Your task to perform on an android device: open app "Adobe Acrobat Reader: Edit PDF" Image 0: 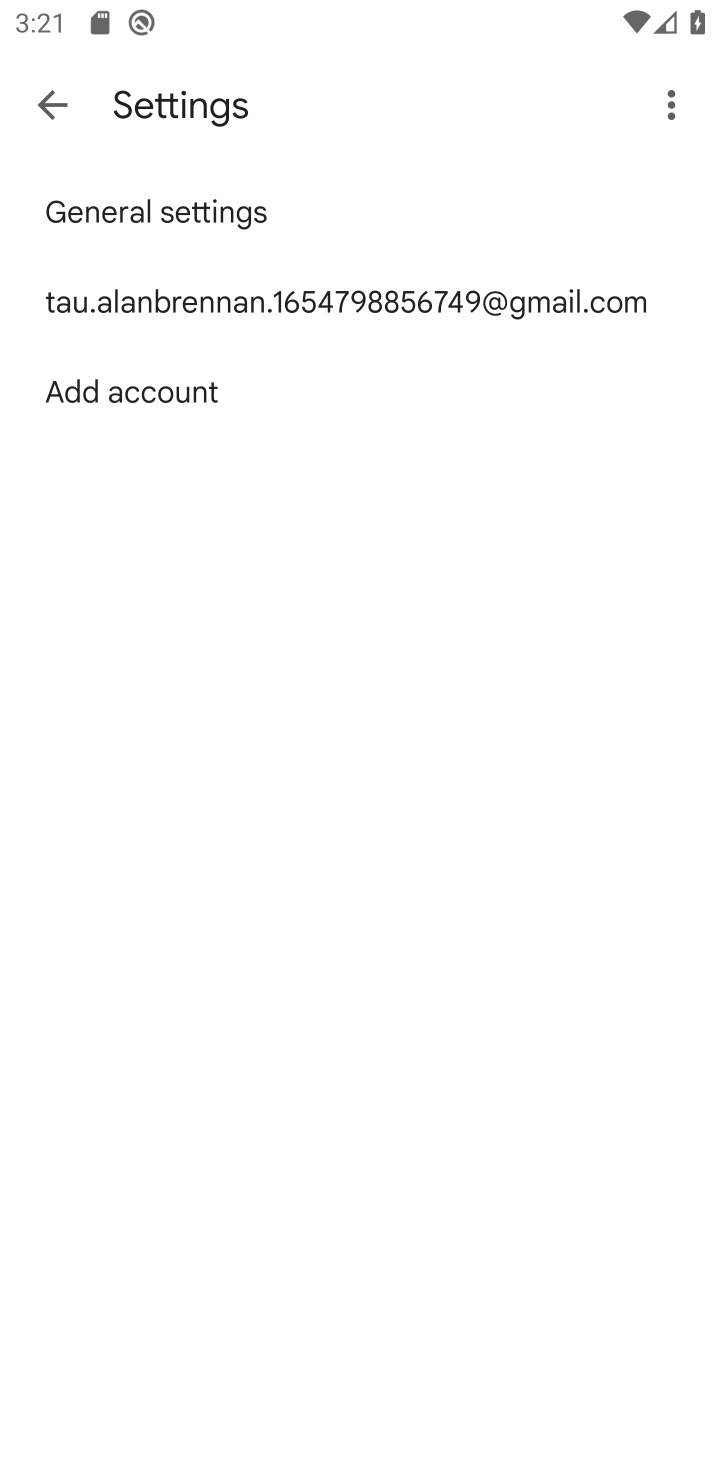
Step 0: click (32, 114)
Your task to perform on an android device: open app "Adobe Acrobat Reader: Edit PDF" Image 1: 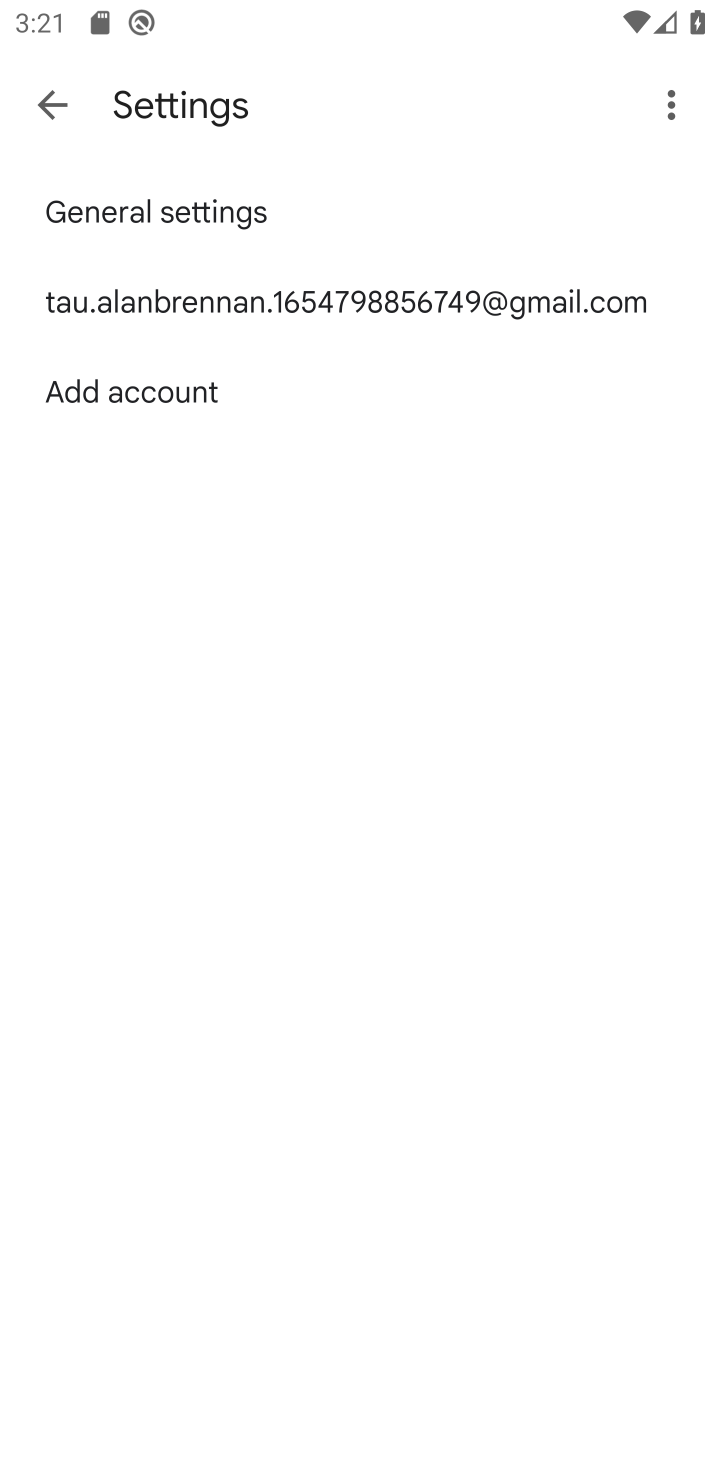
Step 1: press home button
Your task to perform on an android device: open app "Adobe Acrobat Reader: Edit PDF" Image 2: 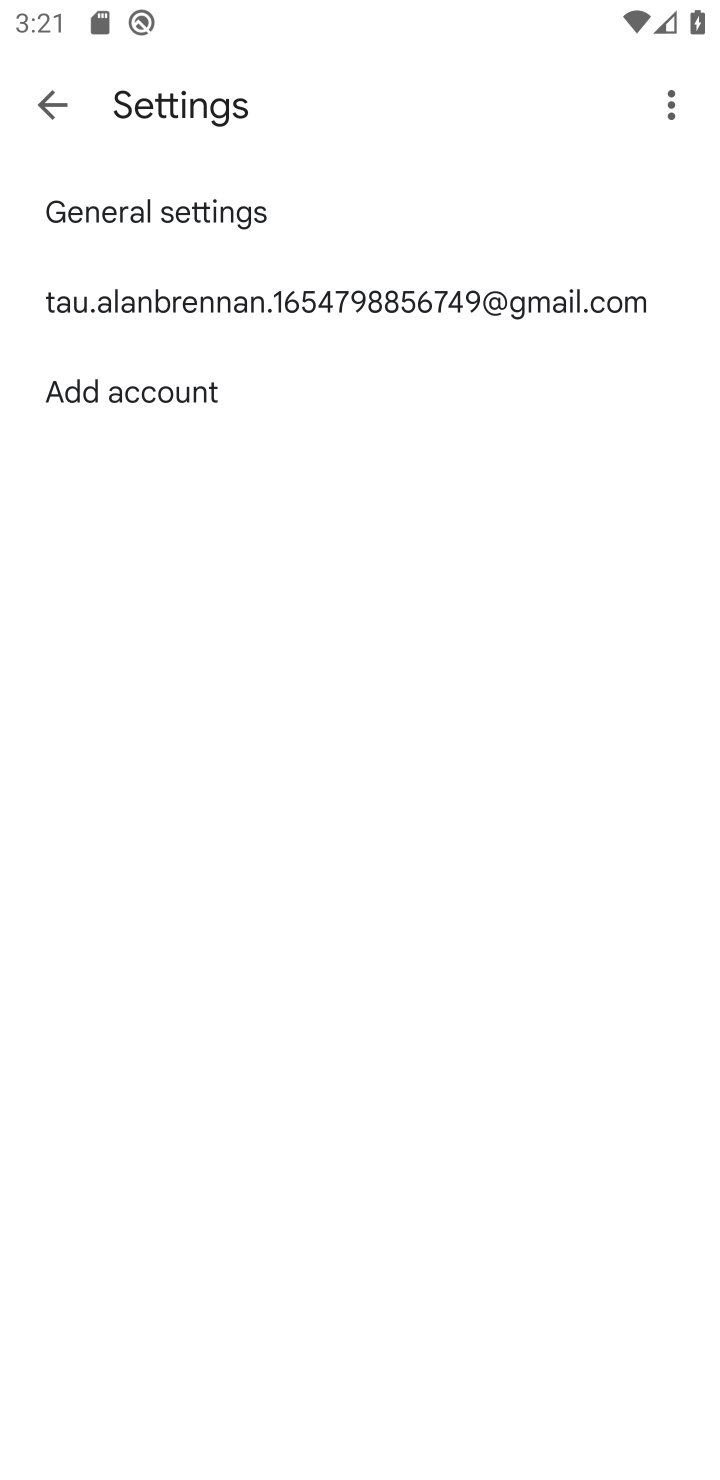
Step 2: press home button
Your task to perform on an android device: open app "Adobe Acrobat Reader: Edit PDF" Image 3: 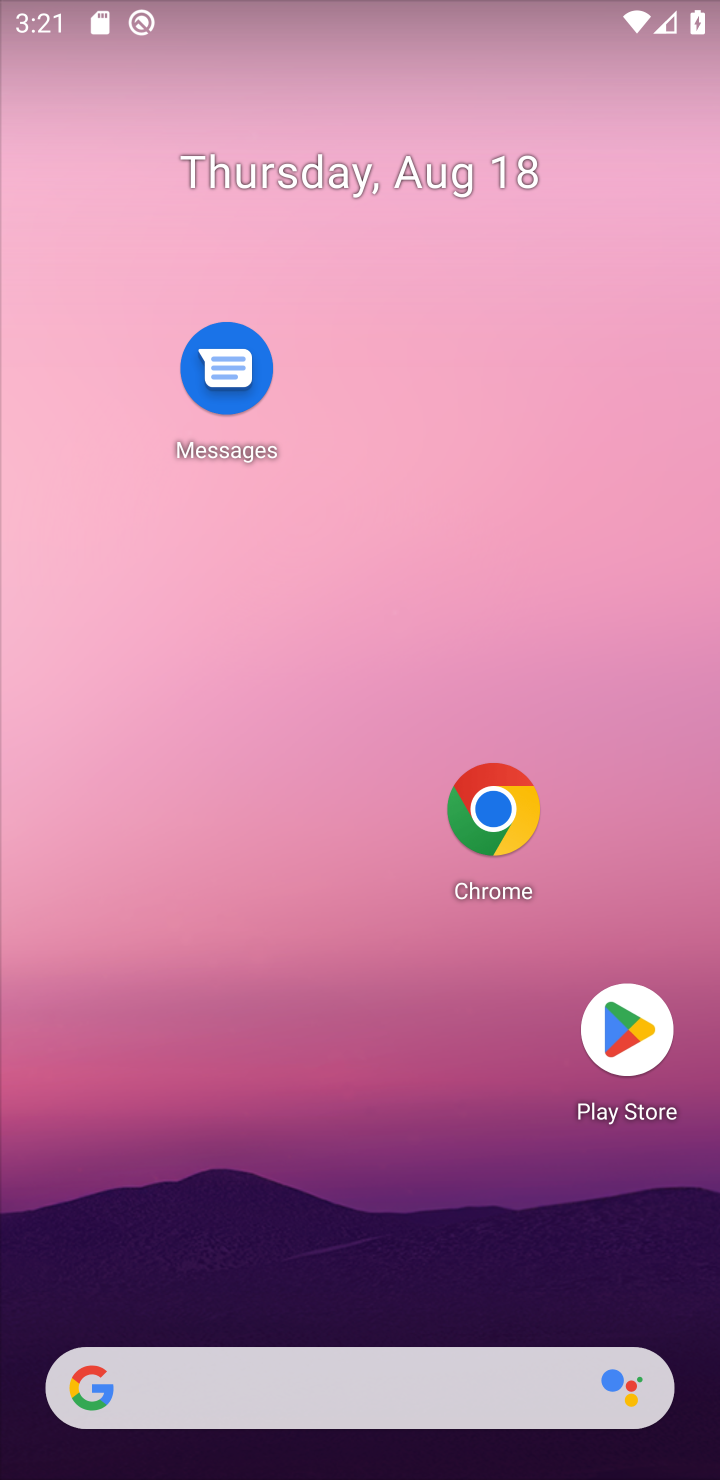
Step 3: drag from (387, 1258) to (382, 257)
Your task to perform on an android device: open app "Adobe Acrobat Reader: Edit PDF" Image 4: 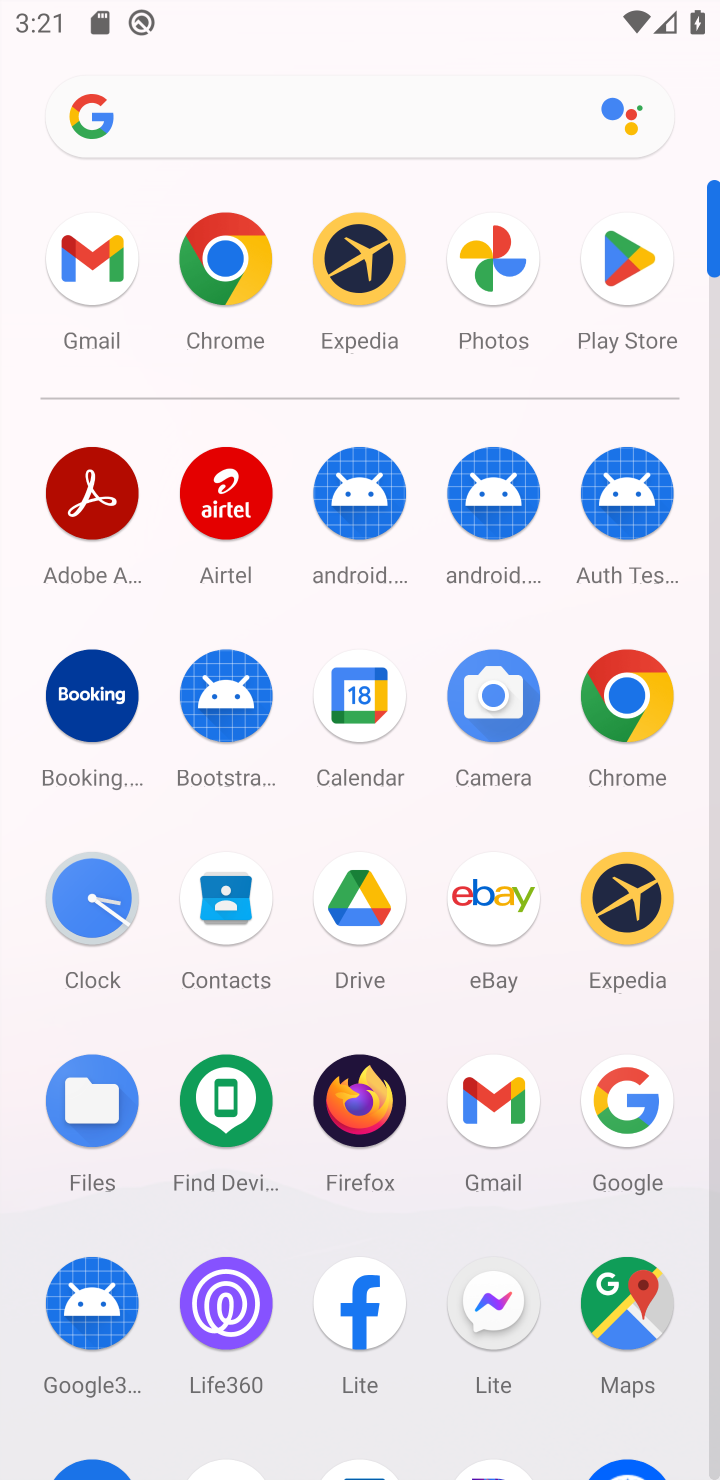
Step 4: click (611, 256)
Your task to perform on an android device: open app "Adobe Acrobat Reader: Edit PDF" Image 5: 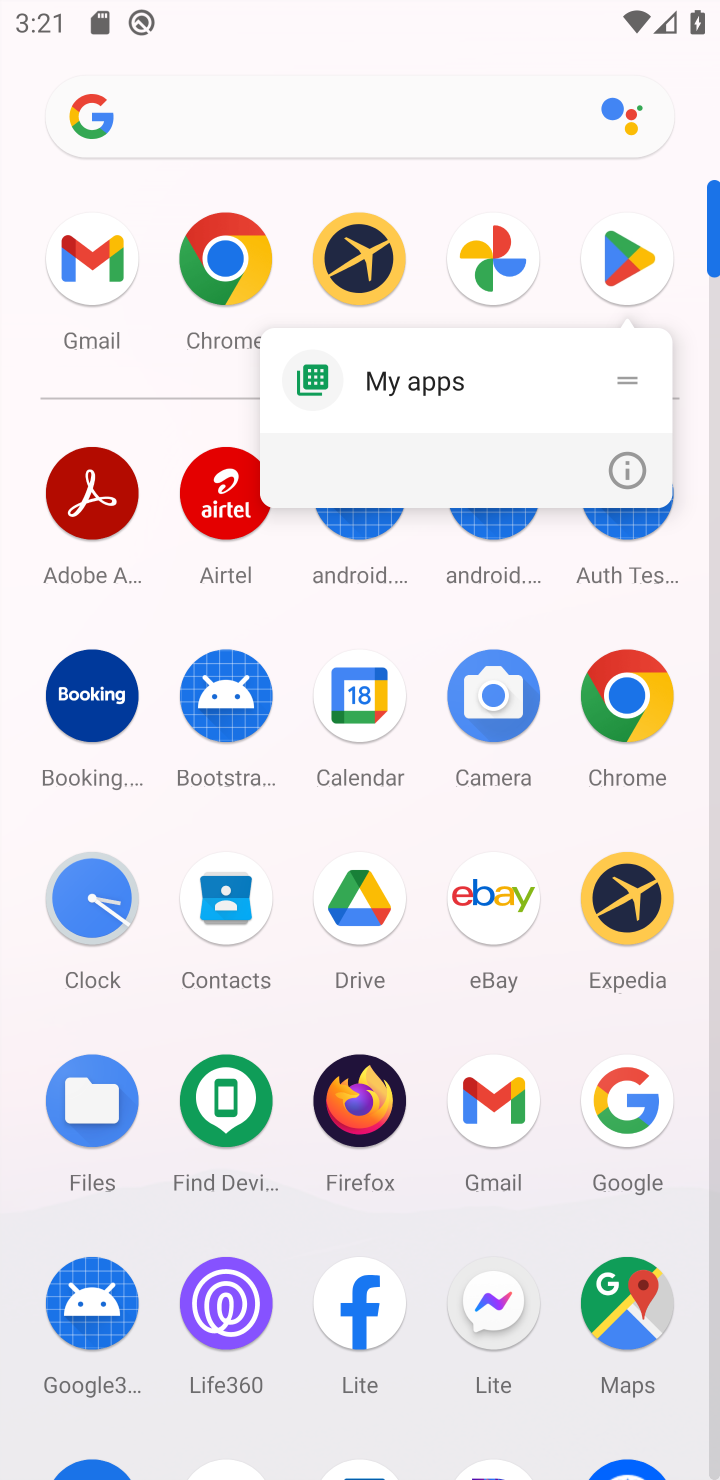
Step 5: click (611, 256)
Your task to perform on an android device: open app "Adobe Acrobat Reader: Edit PDF" Image 6: 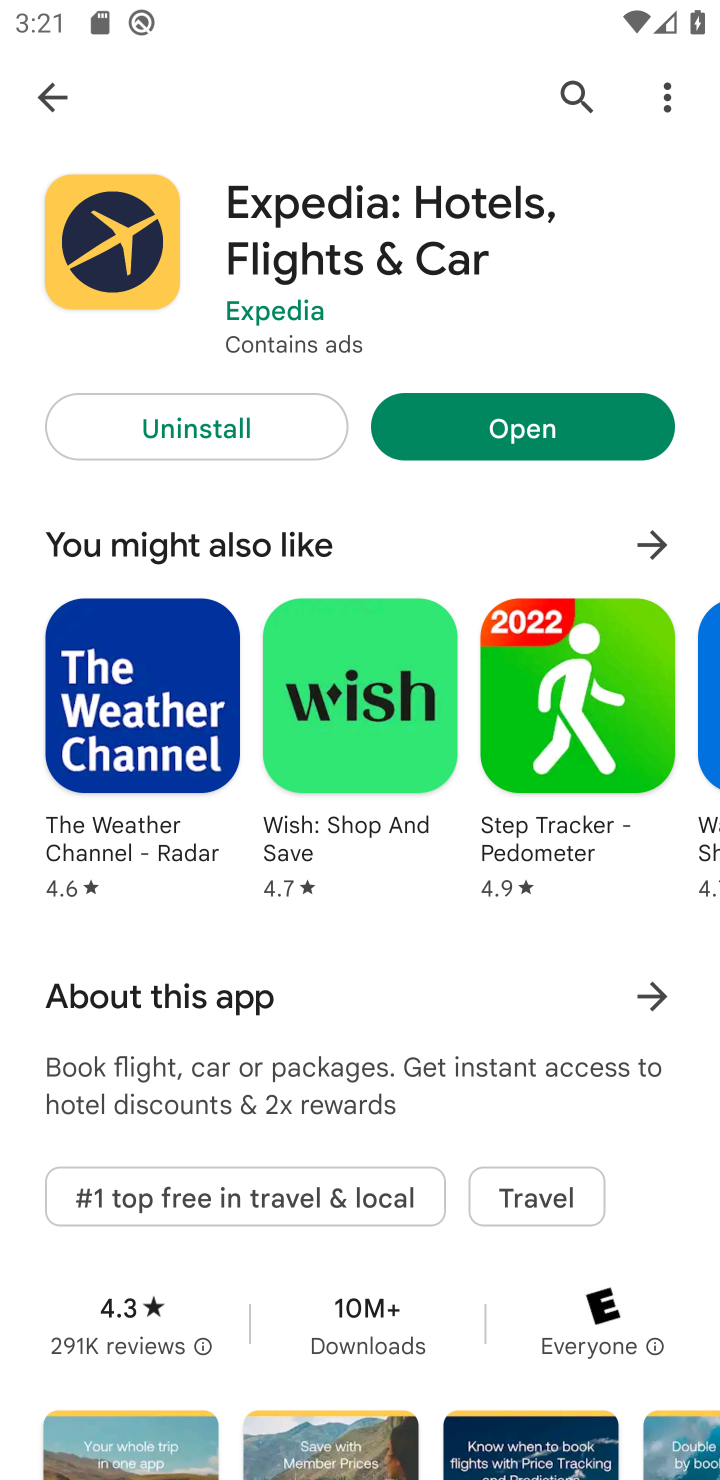
Step 6: click (43, 103)
Your task to perform on an android device: open app "Adobe Acrobat Reader: Edit PDF" Image 7: 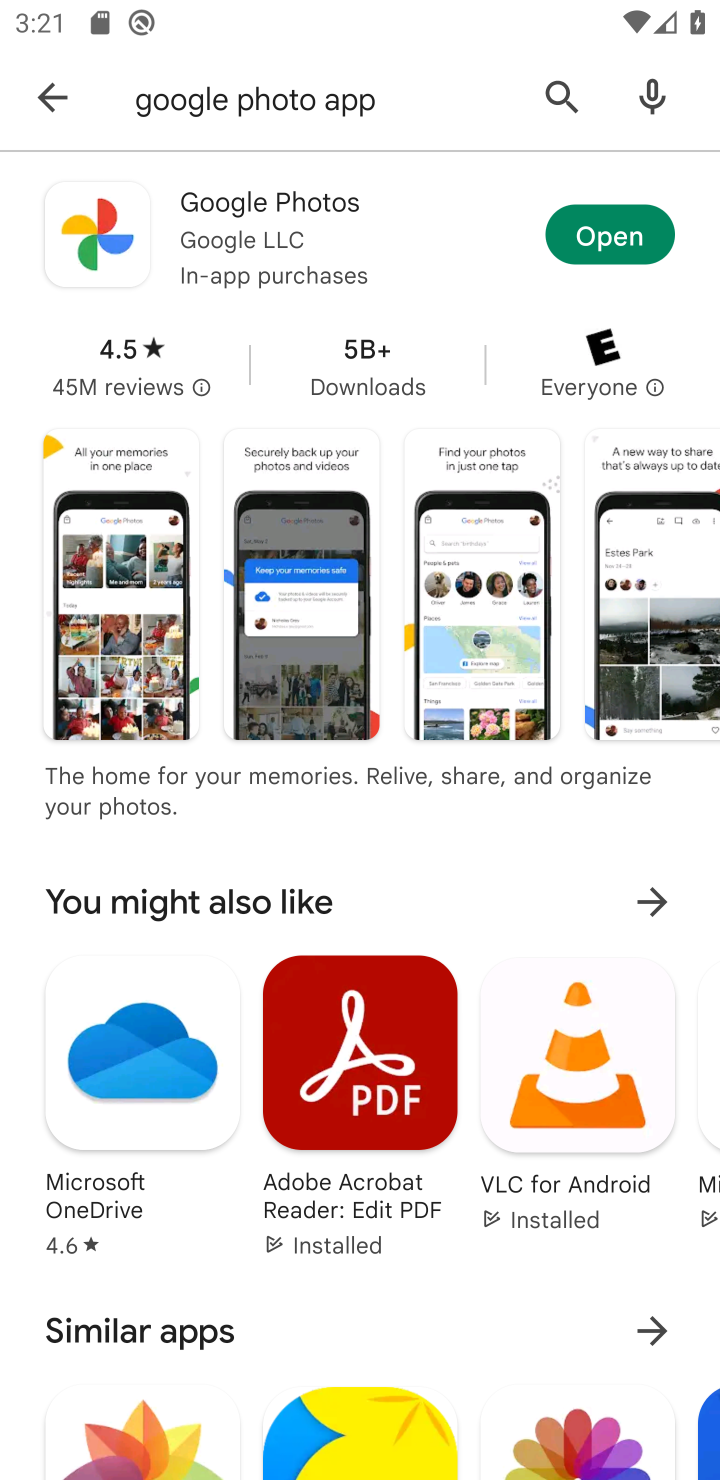
Step 7: click (43, 103)
Your task to perform on an android device: open app "Adobe Acrobat Reader: Edit PDF" Image 8: 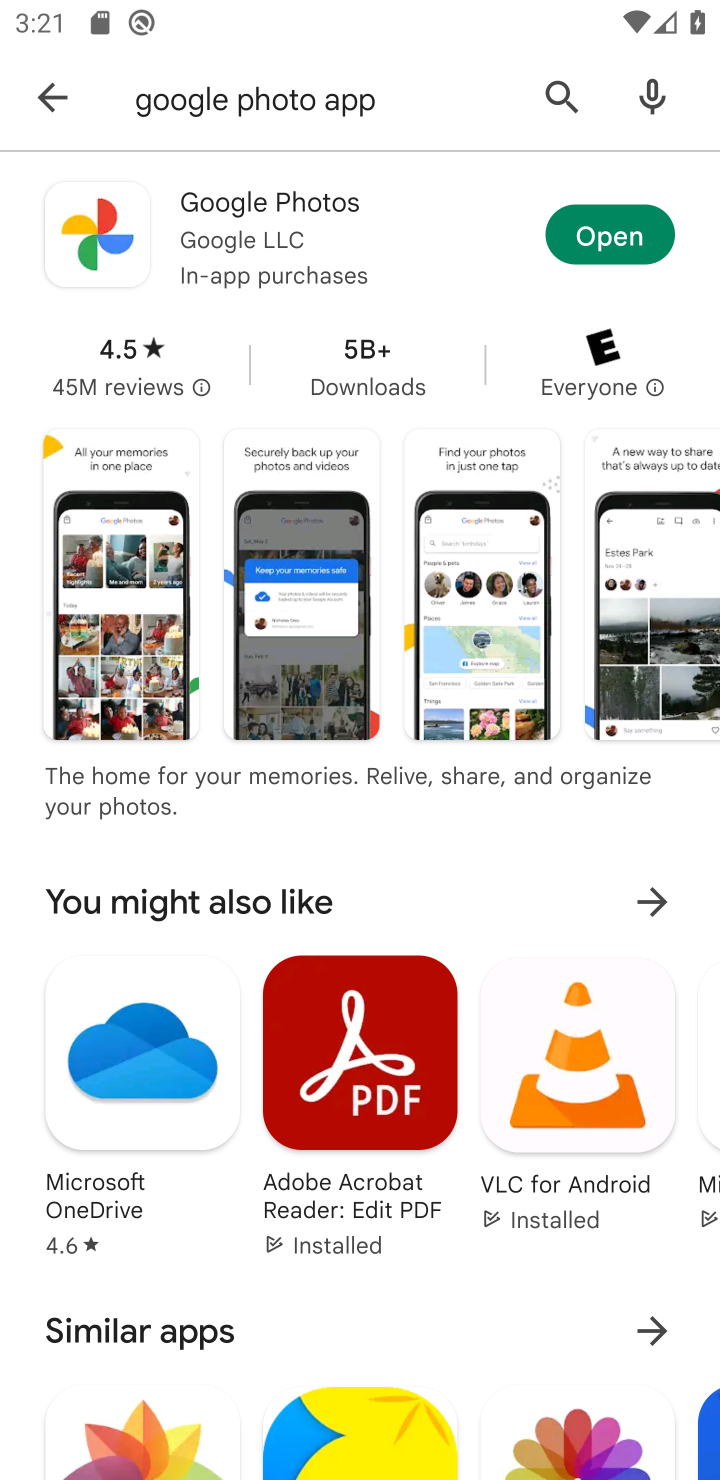
Step 8: click (539, 76)
Your task to perform on an android device: open app "Adobe Acrobat Reader: Edit PDF" Image 9: 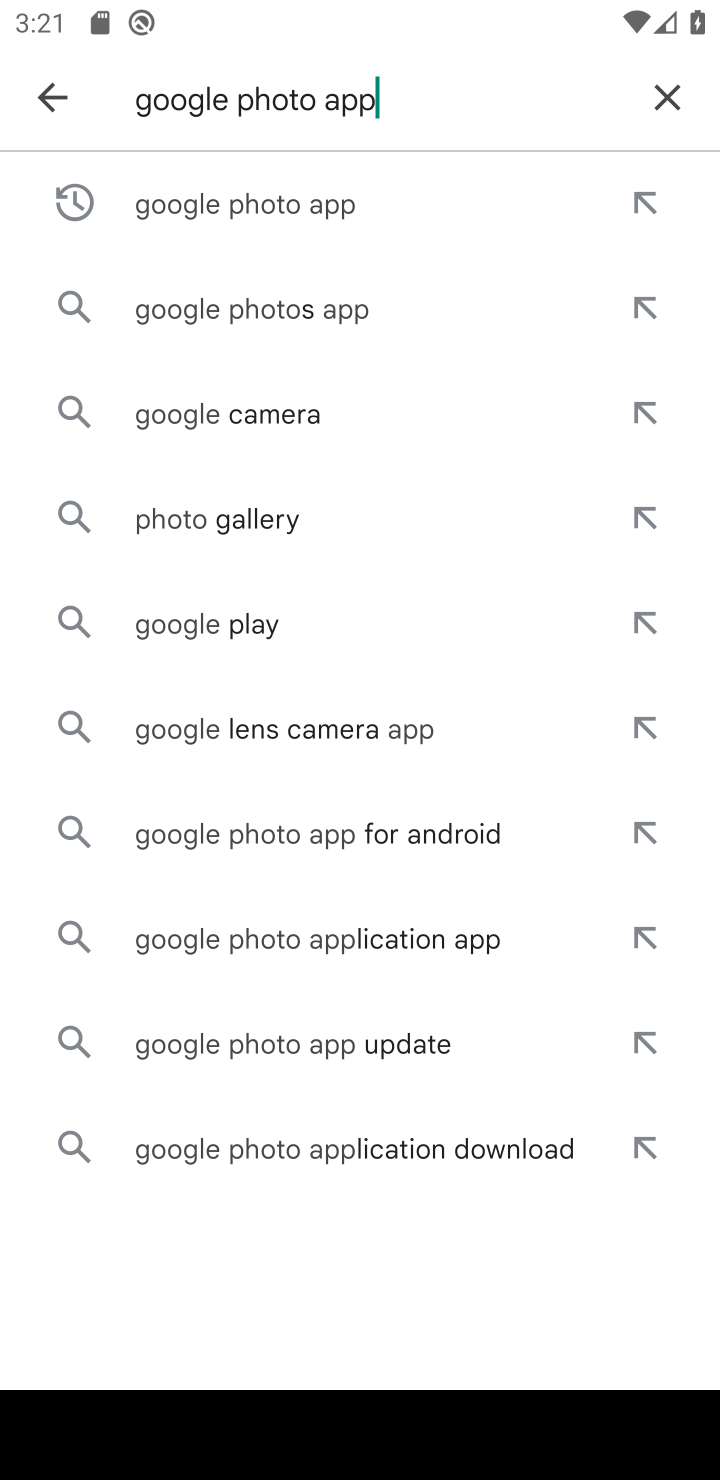
Step 9: click (677, 88)
Your task to perform on an android device: open app "Adobe Acrobat Reader: Edit PDF" Image 10: 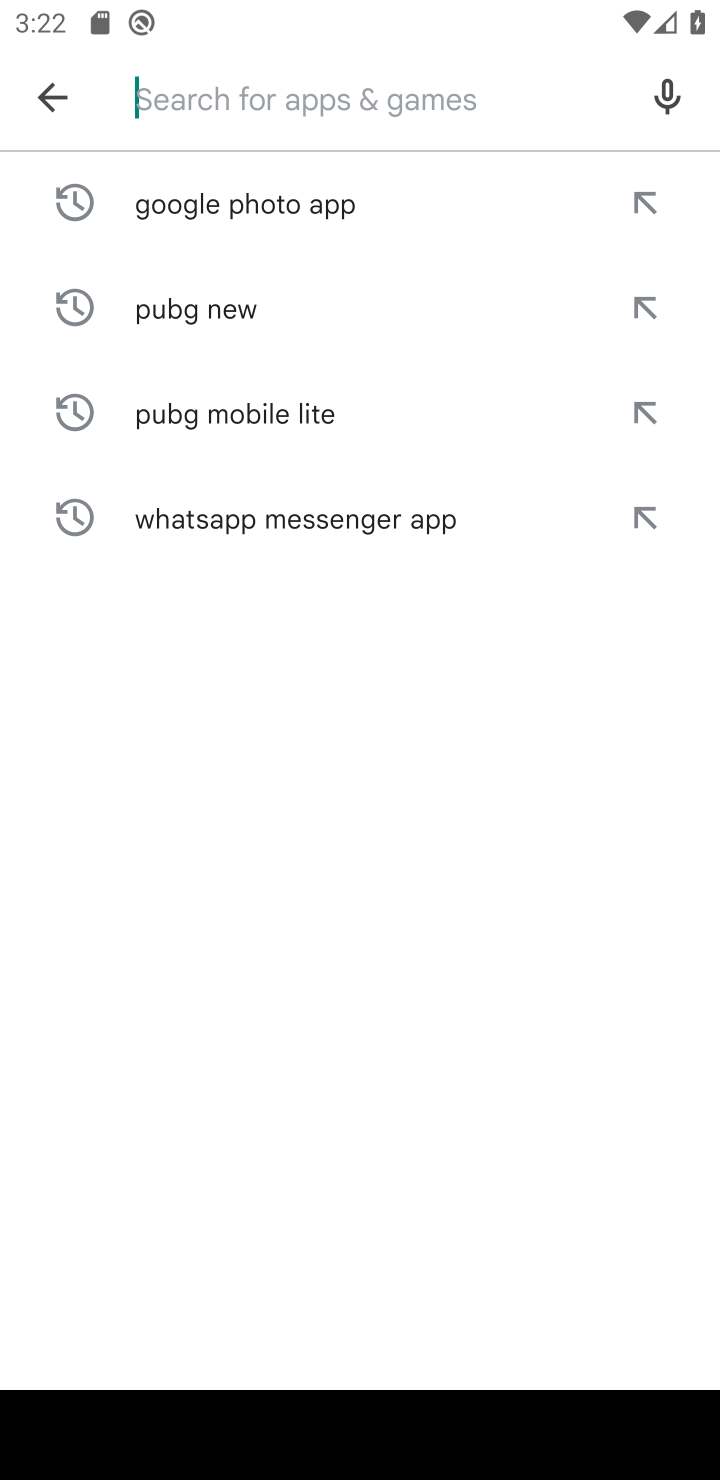
Step 10: click (246, 91)
Your task to perform on an android device: open app "Adobe Acrobat Reader: Edit PDF" Image 11: 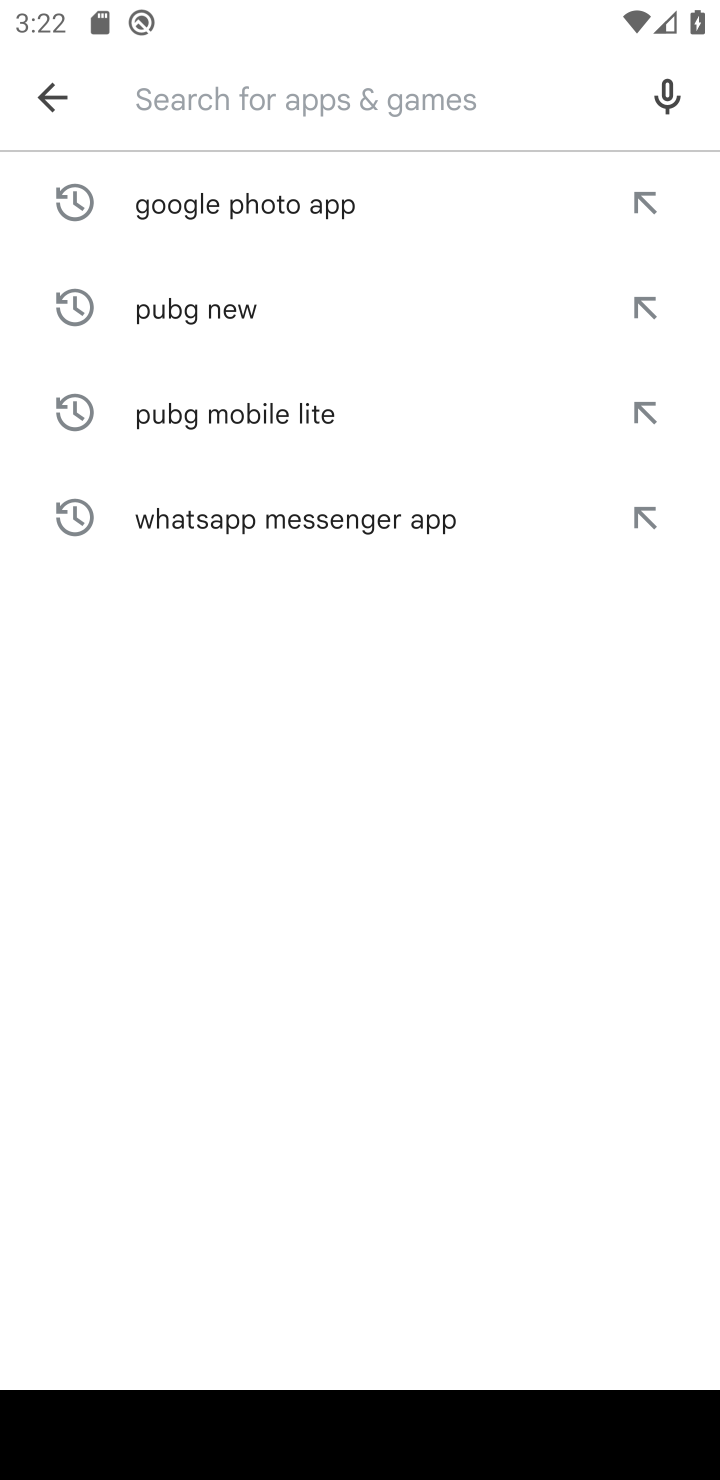
Step 11: type "Adobe Acrobat Reader: Edit PDF "
Your task to perform on an android device: open app "Adobe Acrobat Reader: Edit PDF" Image 12: 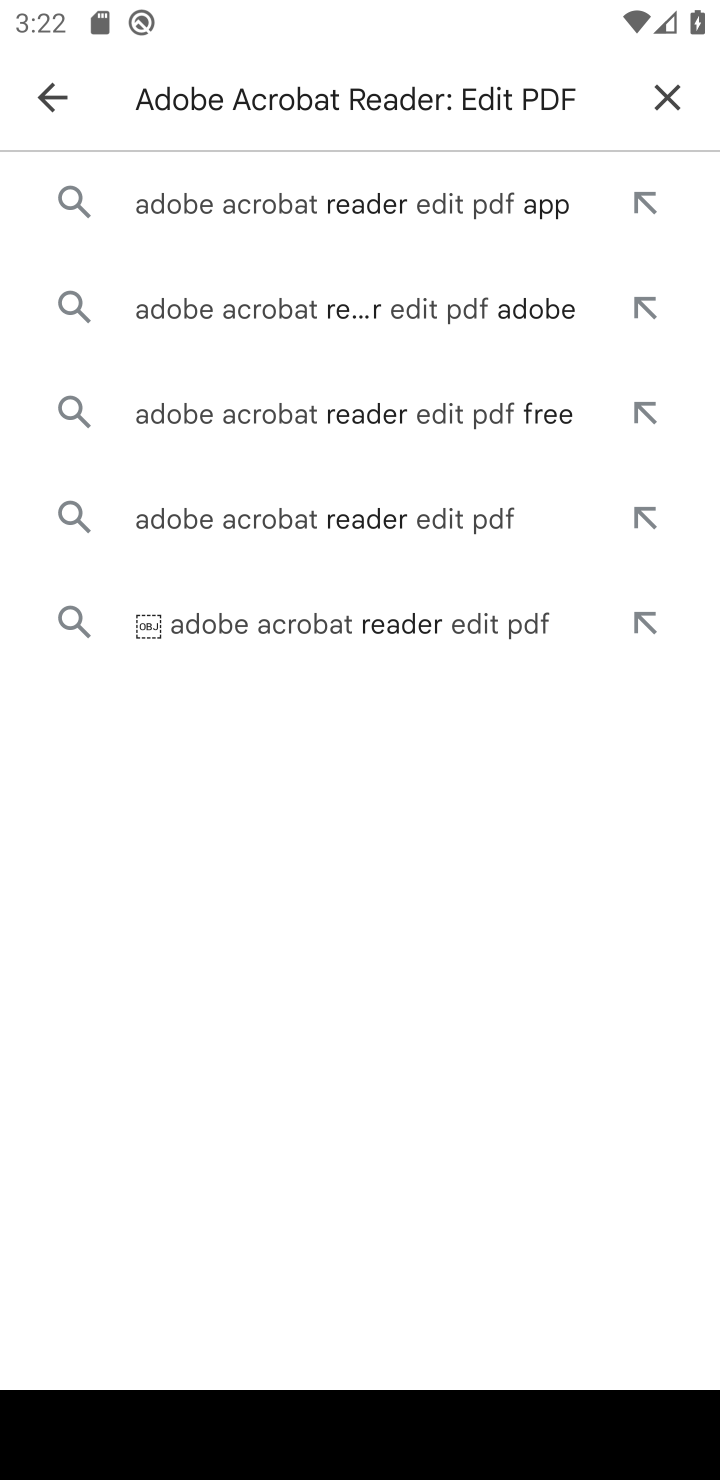
Step 12: click (355, 176)
Your task to perform on an android device: open app "Adobe Acrobat Reader: Edit PDF" Image 13: 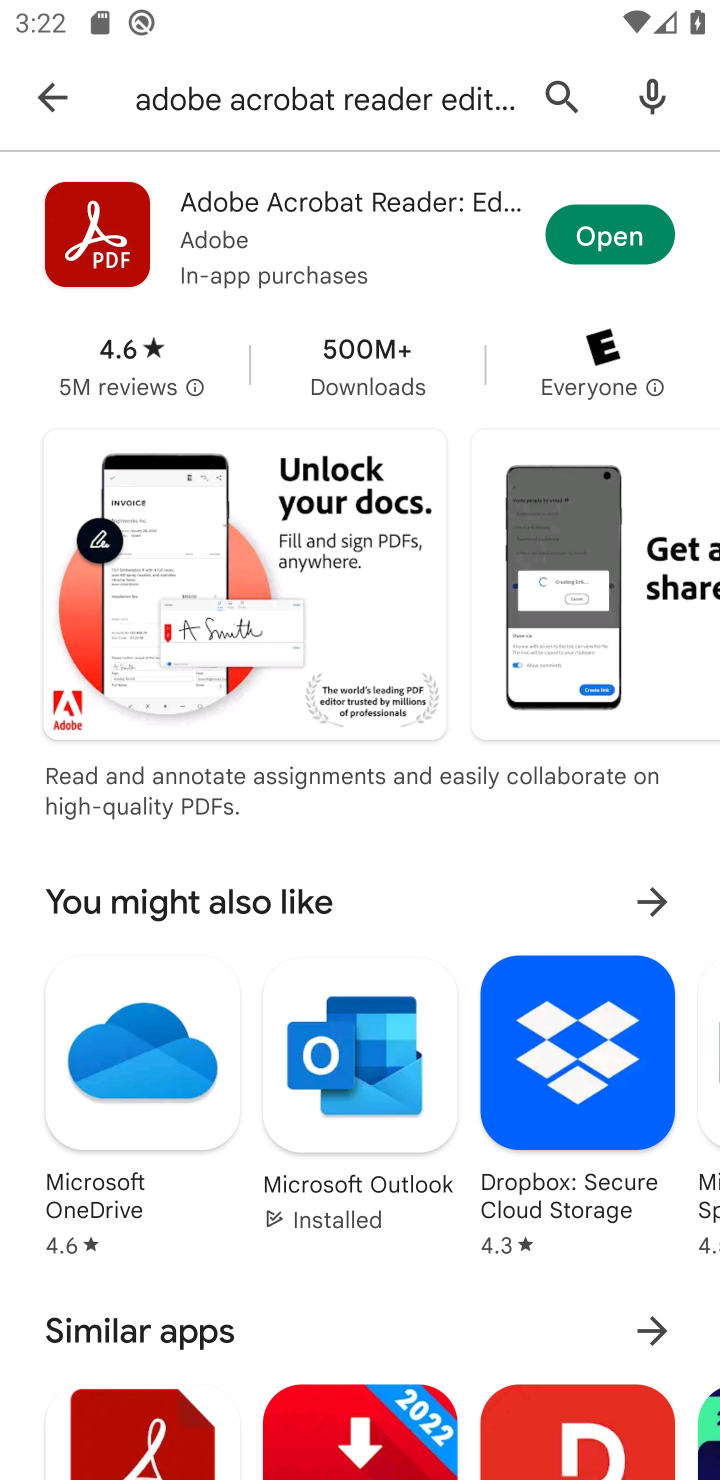
Step 13: click (591, 221)
Your task to perform on an android device: open app "Adobe Acrobat Reader: Edit PDF" Image 14: 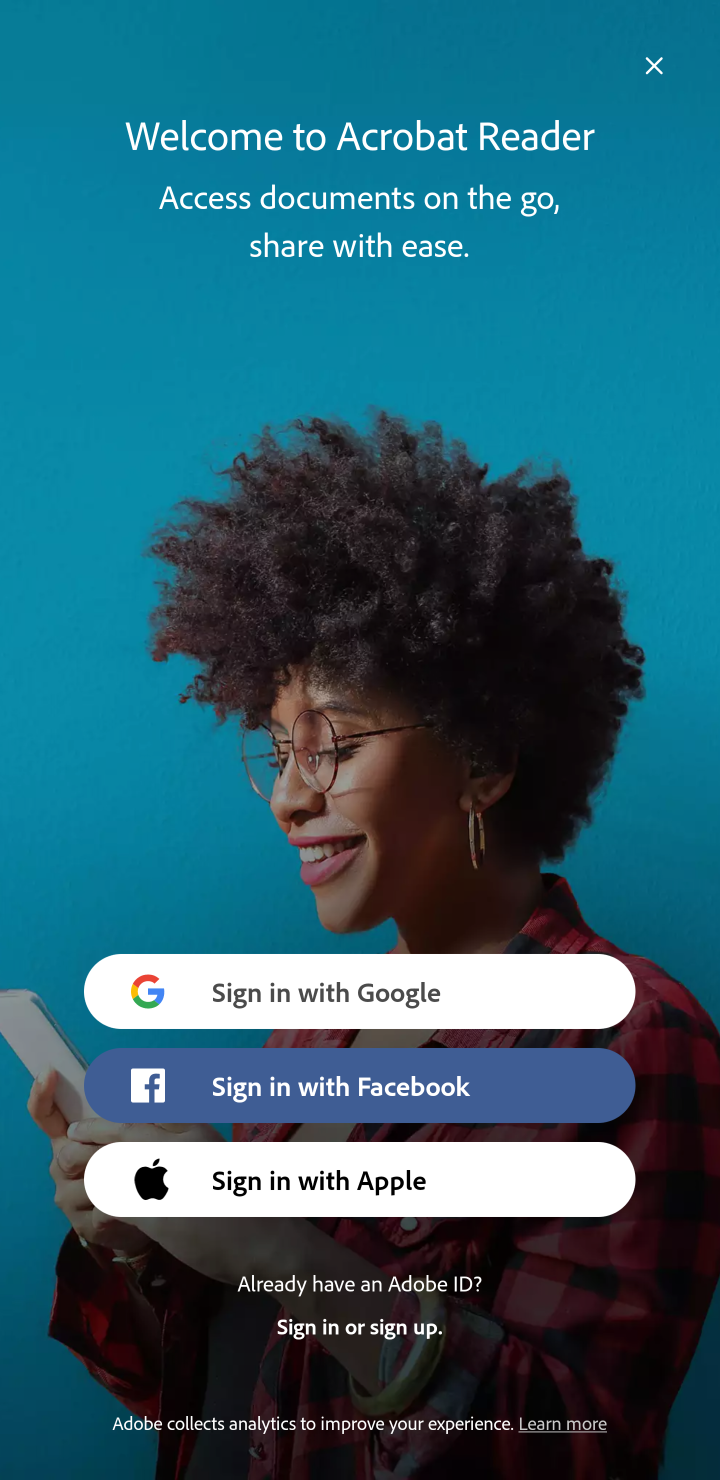
Step 14: task complete